Your task to perform on an android device: refresh tabs in the chrome app Image 0: 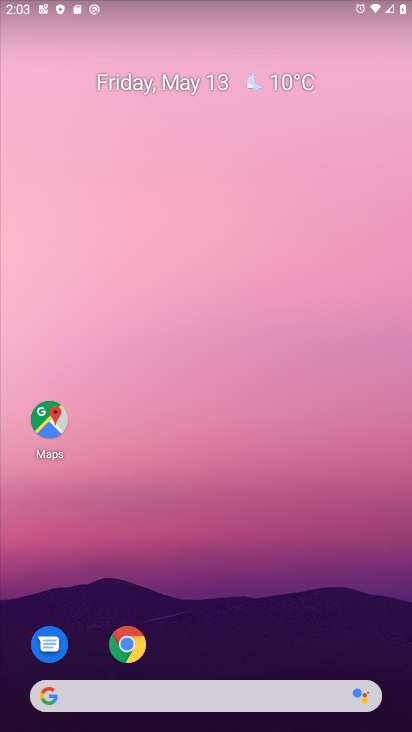
Step 0: click (128, 640)
Your task to perform on an android device: refresh tabs in the chrome app Image 1: 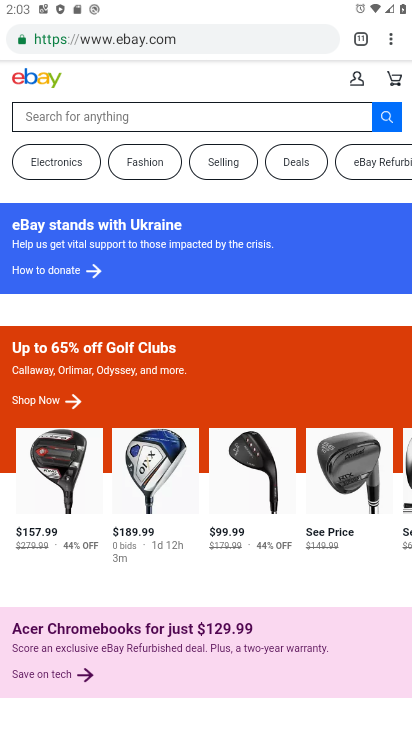
Step 1: click (389, 43)
Your task to perform on an android device: refresh tabs in the chrome app Image 2: 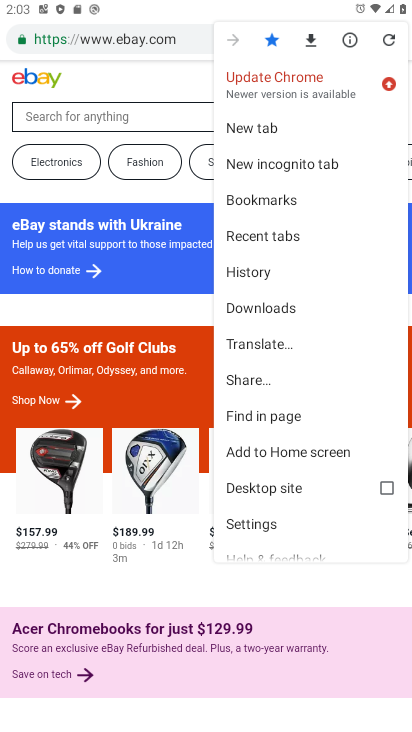
Step 2: click (382, 37)
Your task to perform on an android device: refresh tabs in the chrome app Image 3: 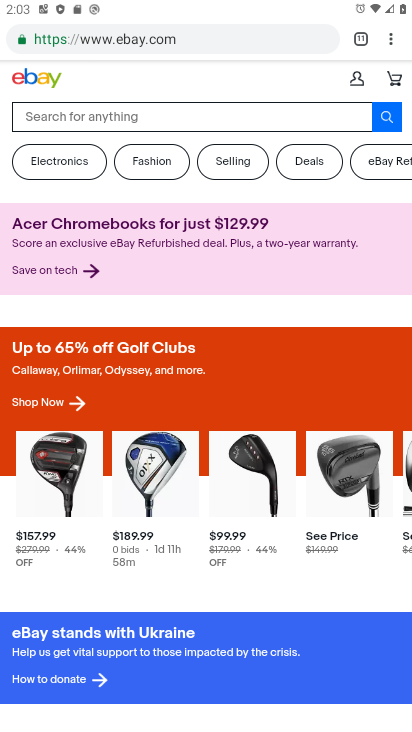
Step 3: task complete